Your task to perform on an android device: Search for Mexican restaurants on Maps Image 0: 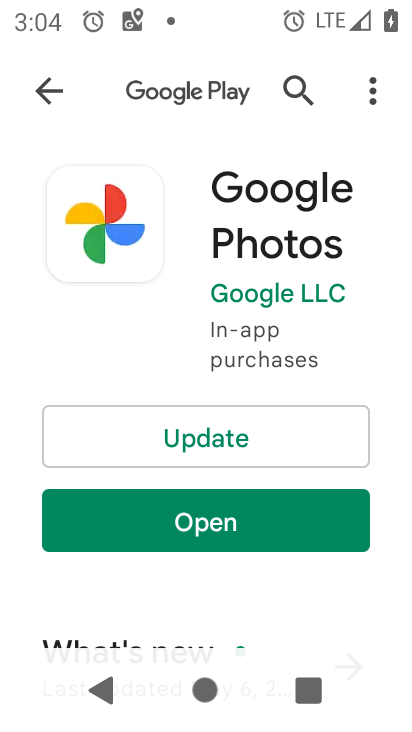
Step 0: press home button
Your task to perform on an android device: Search for Mexican restaurants on Maps Image 1: 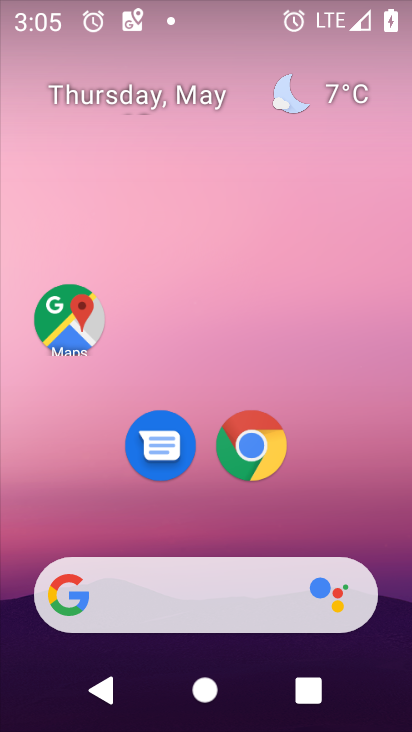
Step 1: click (71, 322)
Your task to perform on an android device: Search for Mexican restaurants on Maps Image 2: 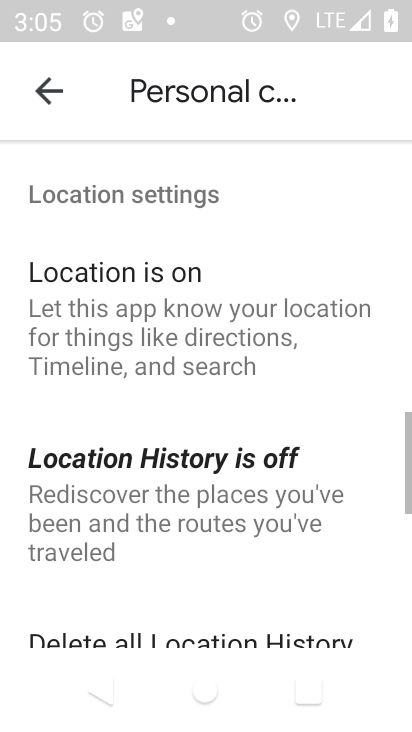
Step 2: click (34, 106)
Your task to perform on an android device: Search for Mexican restaurants on Maps Image 3: 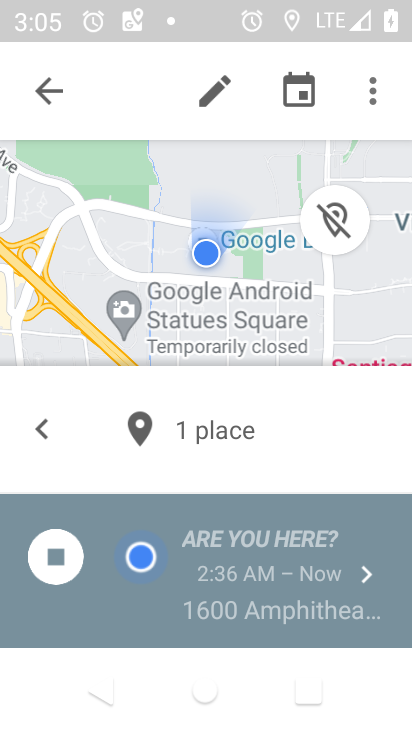
Step 3: click (56, 97)
Your task to perform on an android device: Search for Mexican restaurants on Maps Image 4: 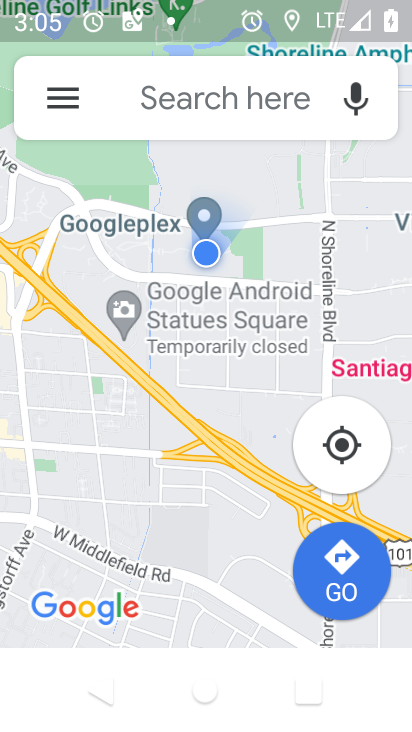
Step 4: click (178, 105)
Your task to perform on an android device: Search for Mexican restaurants on Maps Image 5: 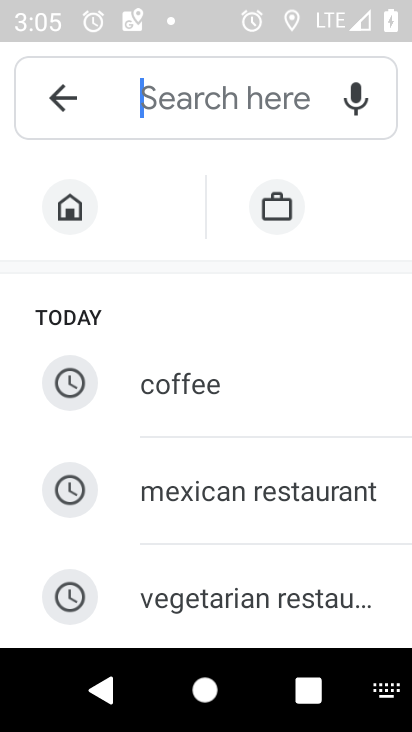
Step 5: type "mexican restaurant"
Your task to perform on an android device: Search for Mexican restaurants on Maps Image 6: 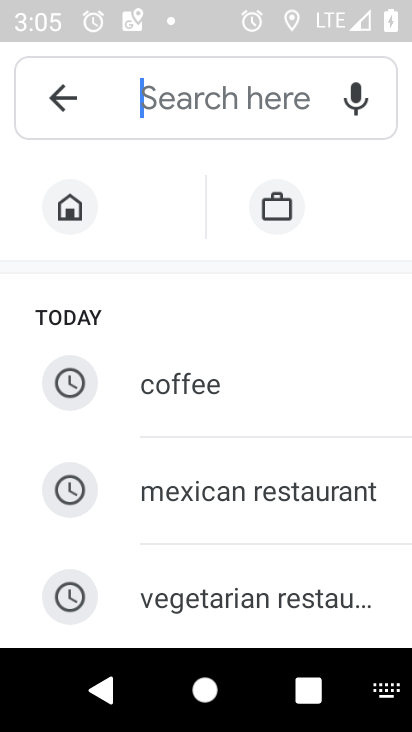
Step 6: click (226, 486)
Your task to perform on an android device: Search for Mexican restaurants on Maps Image 7: 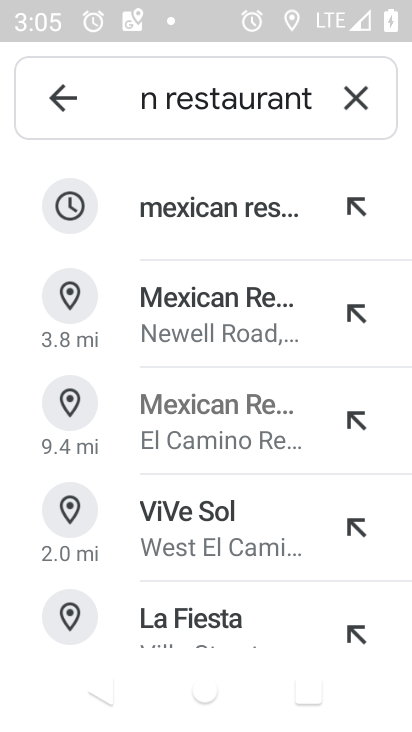
Step 7: click (172, 215)
Your task to perform on an android device: Search for Mexican restaurants on Maps Image 8: 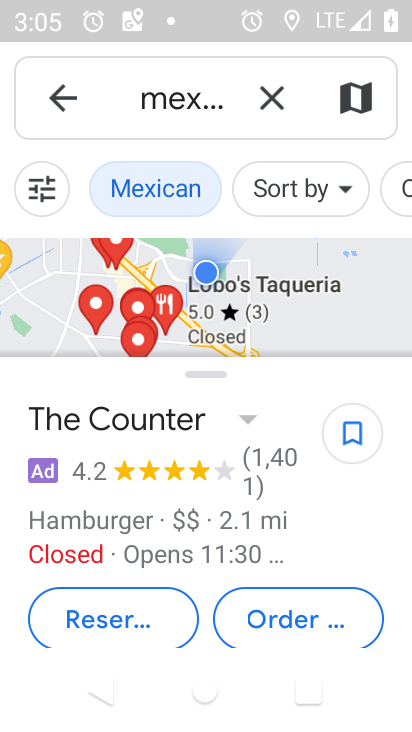
Step 8: task complete